Your task to perform on an android device: See recent photos Image 0: 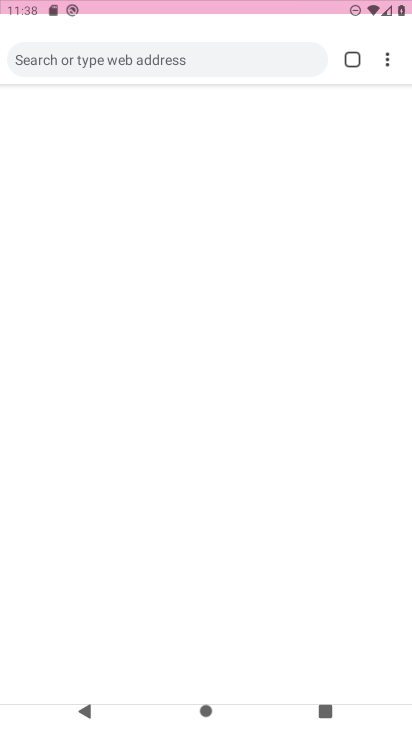
Step 0: drag from (292, 355) to (206, 39)
Your task to perform on an android device: See recent photos Image 1: 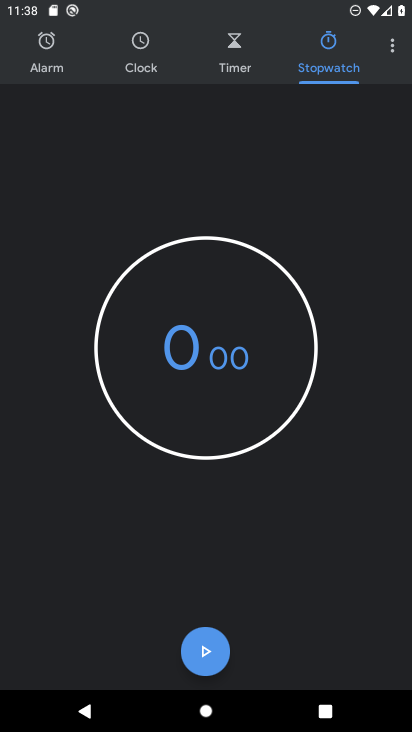
Step 1: press back button
Your task to perform on an android device: See recent photos Image 2: 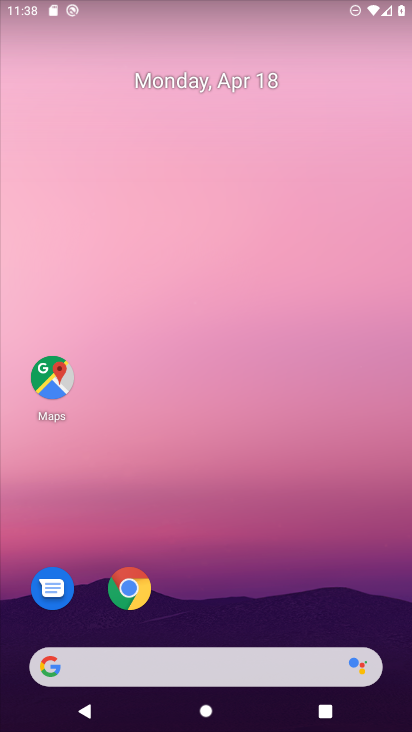
Step 2: drag from (334, 578) to (218, 11)
Your task to perform on an android device: See recent photos Image 3: 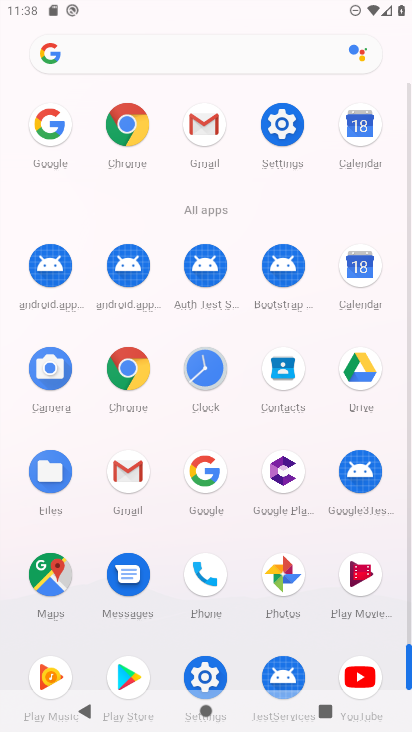
Step 3: drag from (4, 548) to (1, 325)
Your task to perform on an android device: See recent photos Image 4: 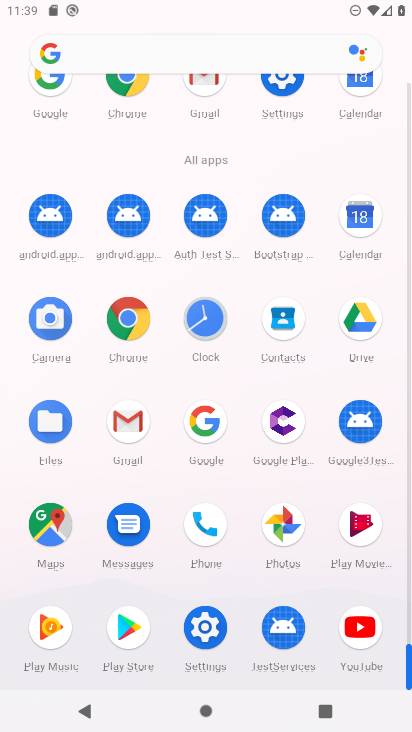
Step 4: drag from (20, 178) to (15, 346)
Your task to perform on an android device: See recent photos Image 5: 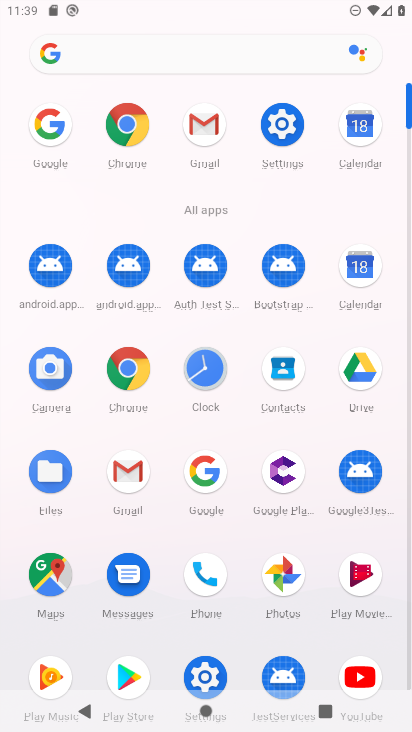
Step 5: click (283, 572)
Your task to perform on an android device: See recent photos Image 6: 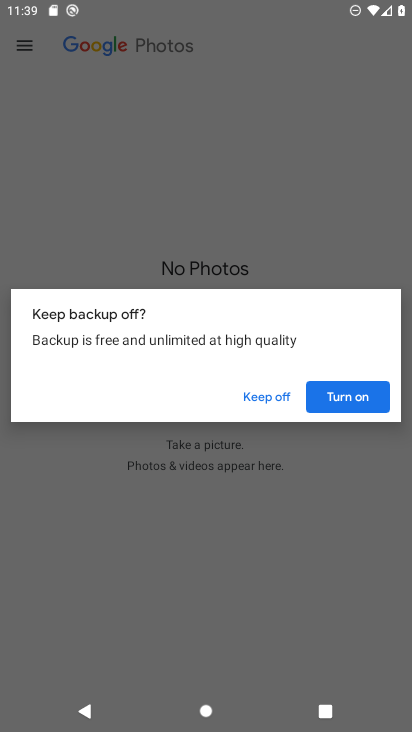
Step 6: click (358, 391)
Your task to perform on an android device: See recent photos Image 7: 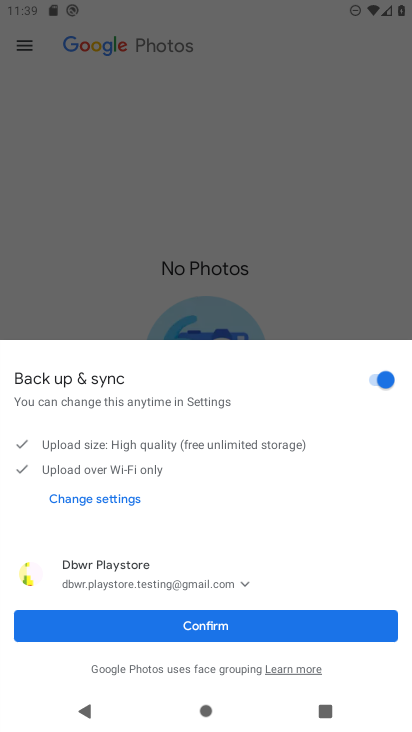
Step 7: click (210, 634)
Your task to perform on an android device: See recent photos Image 8: 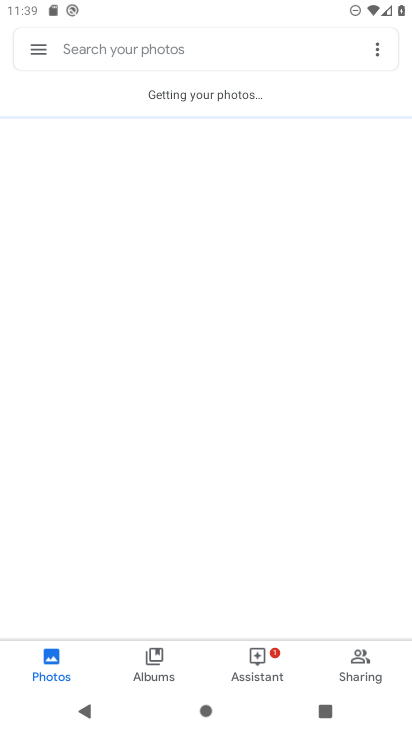
Step 8: task complete